Your task to perform on an android device: Go to Yahoo.com Image 0: 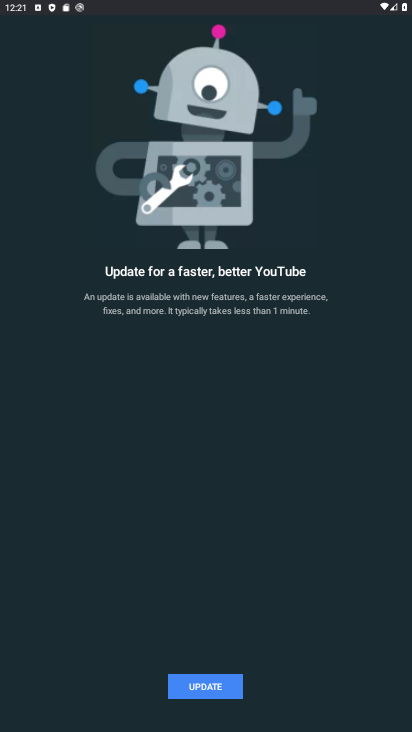
Step 0: press home button
Your task to perform on an android device: Go to Yahoo.com Image 1: 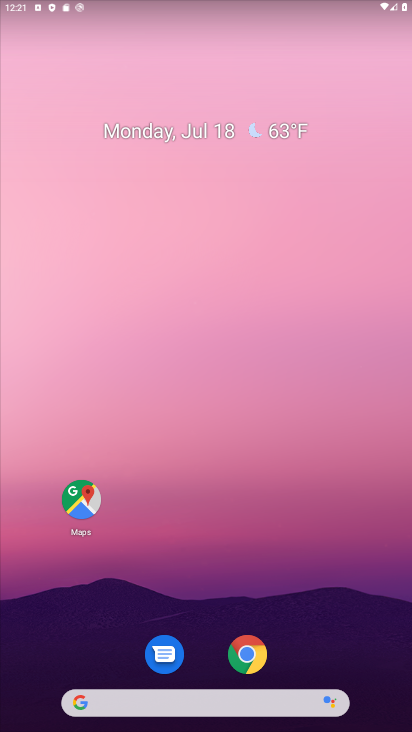
Step 1: click (244, 650)
Your task to perform on an android device: Go to Yahoo.com Image 2: 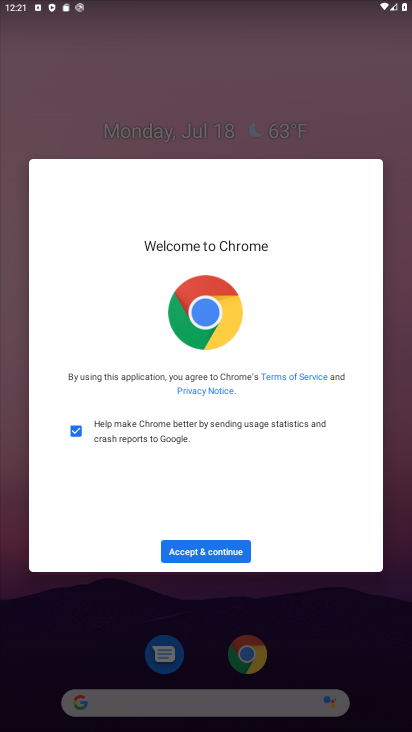
Step 2: click (236, 550)
Your task to perform on an android device: Go to Yahoo.com Image 3: 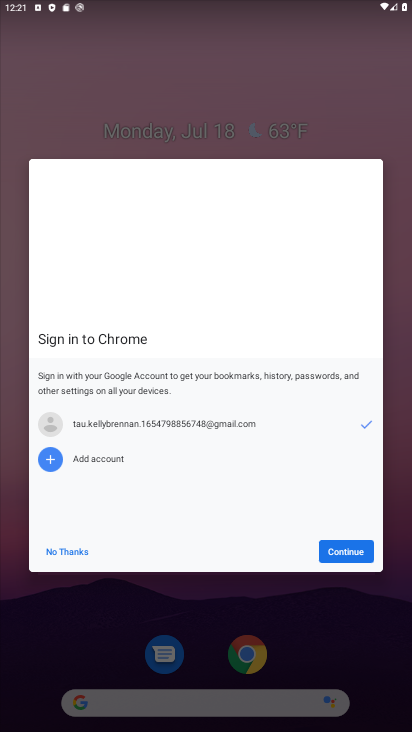
Step 3: click (324, 537)
Your task to perform on an android device: Go to Yahoo.com Image 4: 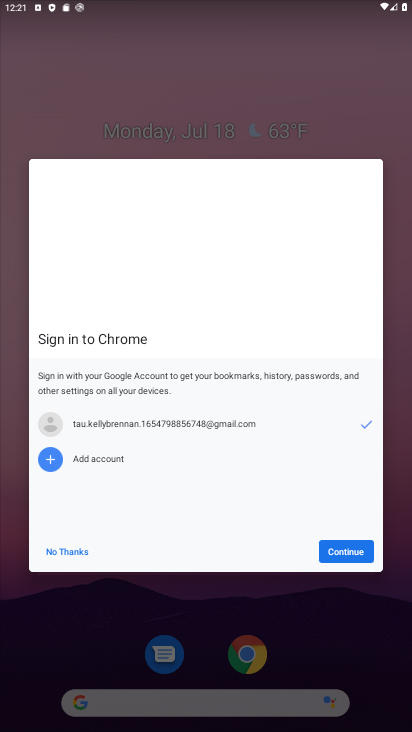
Step 4: click (328, 543)
Your task to perform on an android device: Go to Yahoo.com Image 5: 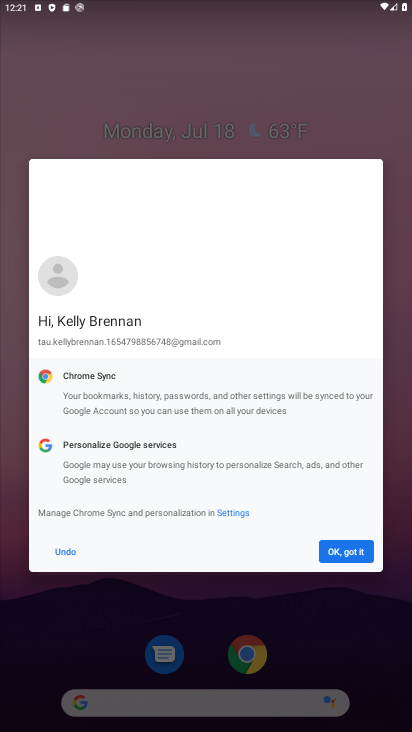
Step 5: click (328, 543)
Your task to perform on an android device: Go to Yahoo.com Image 6: 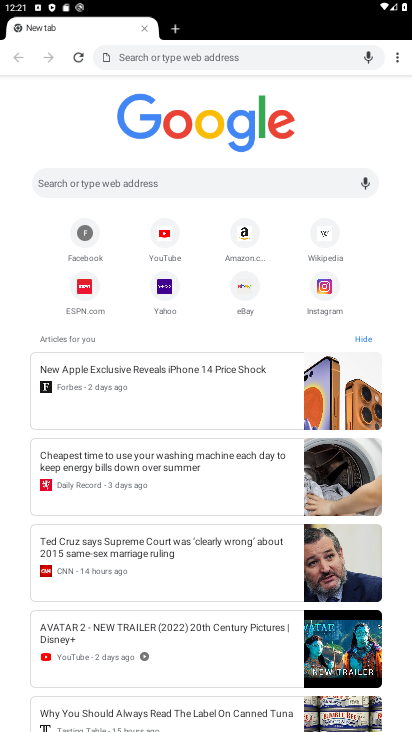
Step 6: click (167, 292)
Your task to perform on an android device: Go to Yahoo.com Image 7: 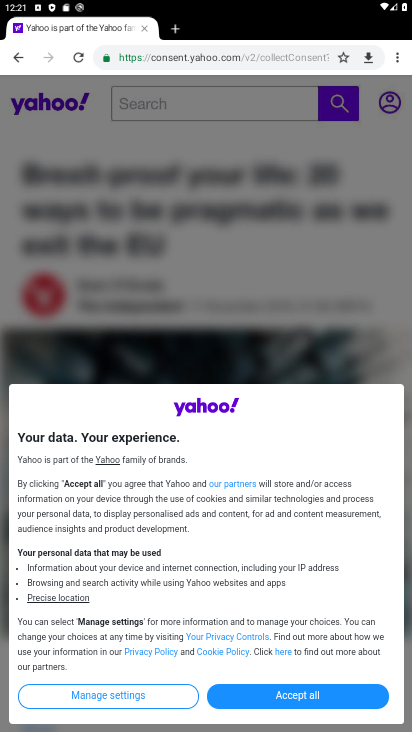
Step 7: click (291, 692)
Your task to perform on an android device: Go to Yahoo.com Image 8: 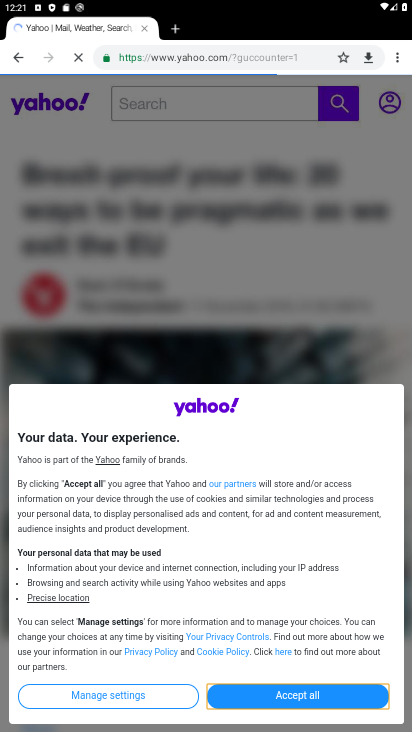
Step 8: task complete